Your task to perform on an android device: Search for dell alienware on ebay.com, select the first entry, and add it to the cart. Image 0: 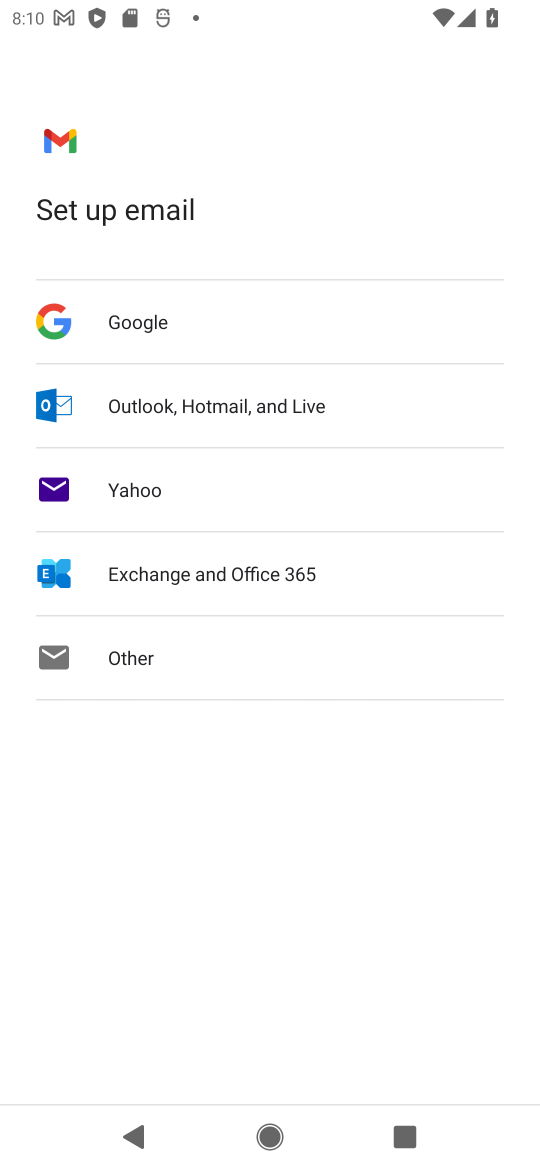
Step 0: press home button
Your task to perform on an android device: Search for dell alienware on ebay.com, select the first entry, and add it to the cart. Image 1: 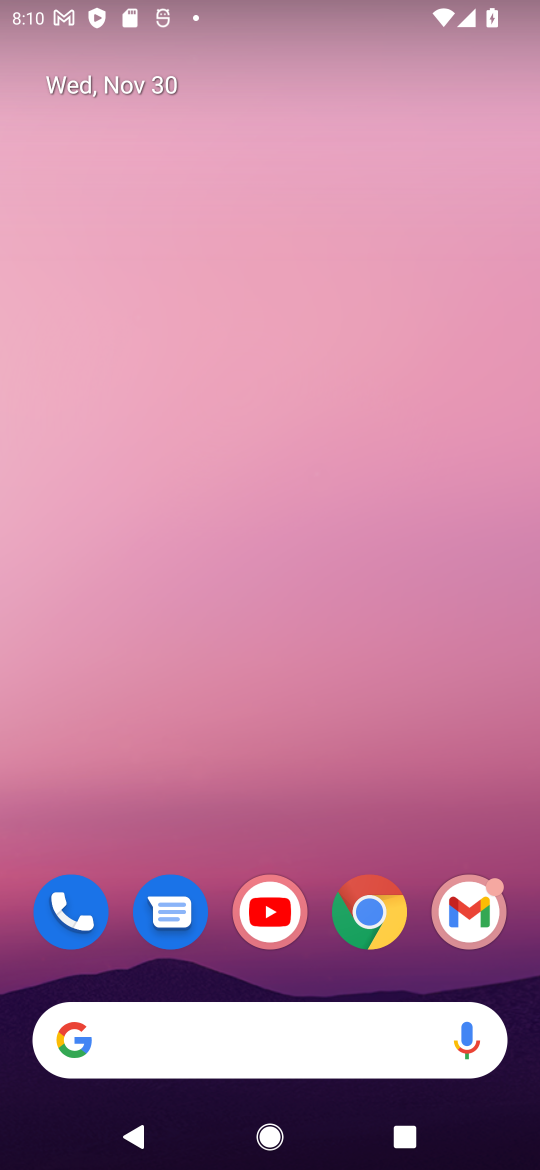
Step 1: click (290, 1049)
Your task to perform on an android device: Search for dell alienware on ebay.com, select the first entry, and add it to the cart. Image 2: 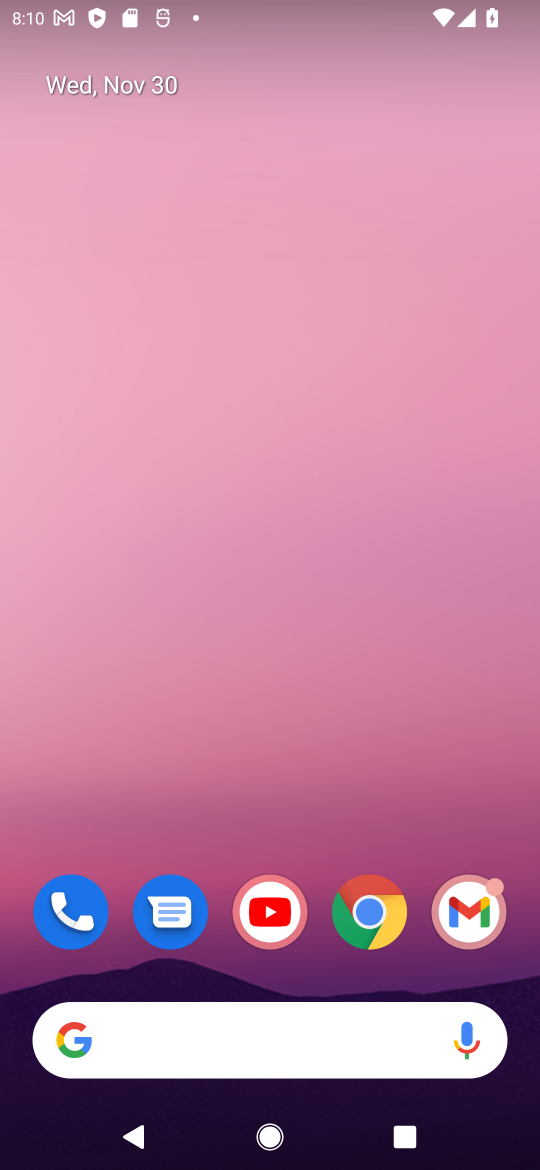
Step 2: click (230, 1051)
Your task to perform on an android device: Search for dell alienware on ebay.com, select the first entry, and add it to the cart. Image 3: 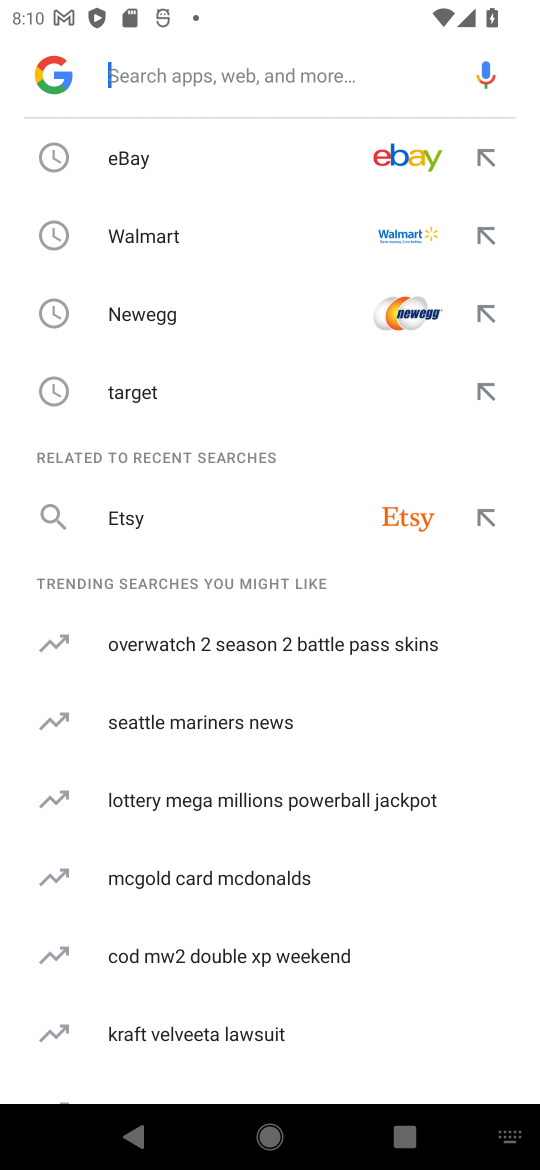
Step 3: click (170, 160)
Your task to perform on an android device: Search for dell alienware on ebay.com, select the first entry, and add it to the cart. Image 4: 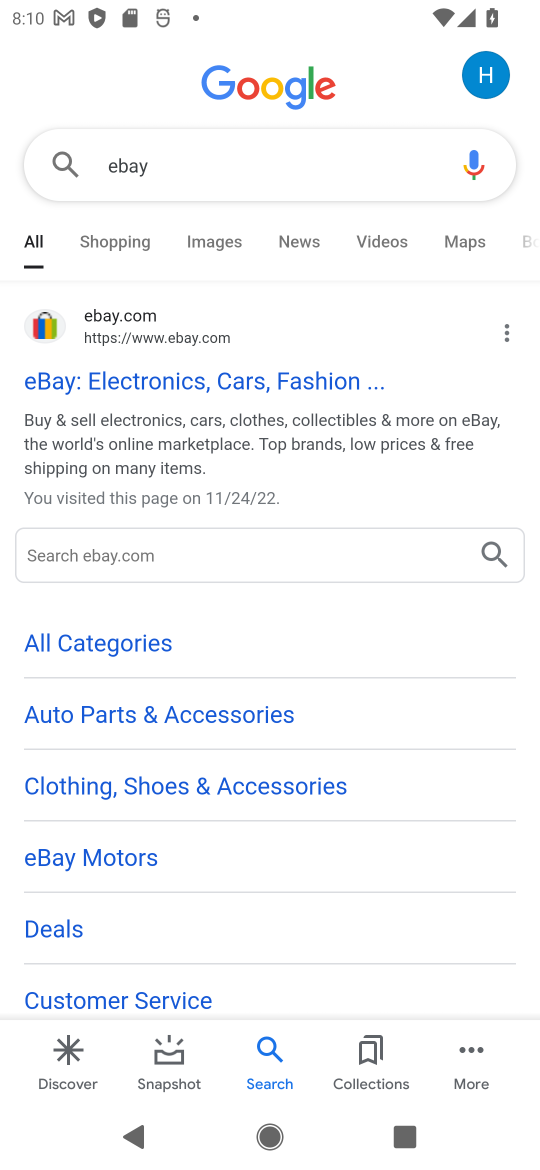
Step 4: click (110, 321)
Your task to perform on an android device: Search for dell alienware on ebay.com, select the first entry, and add it to the cart. Image 5: 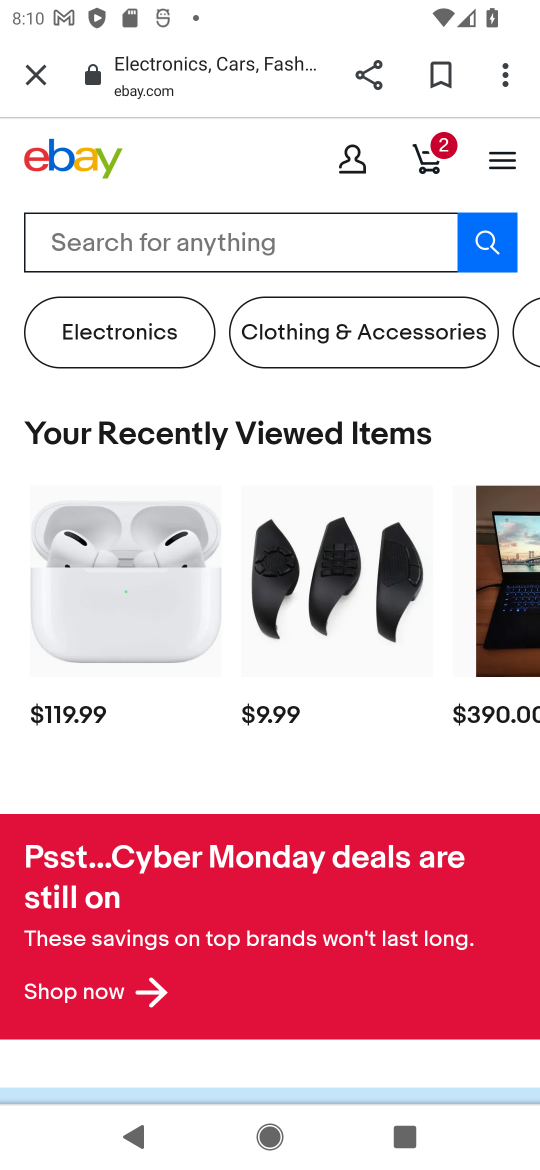
Step 5: click (194, 226)
Your task to perform on an android device: Search for dell alienware on ebay.com, select the first entry, and add it to the cart. Image 6: 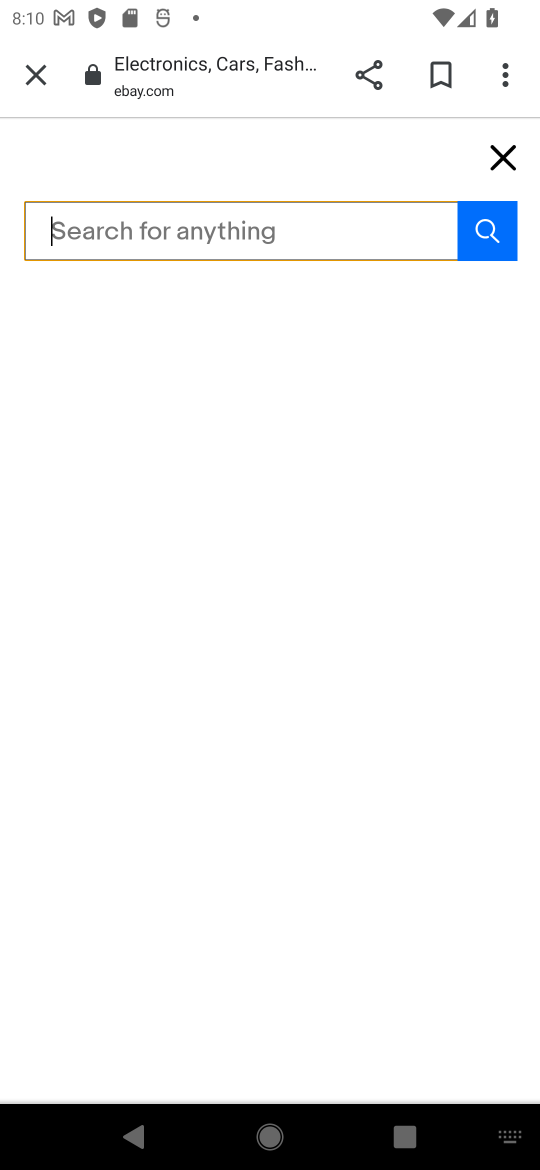
Step 6: type "dell alienware"
Your task to perform on an android device: Search for dell alienware on ebay.com, select the first entry, and add it to the cart. Image 7: 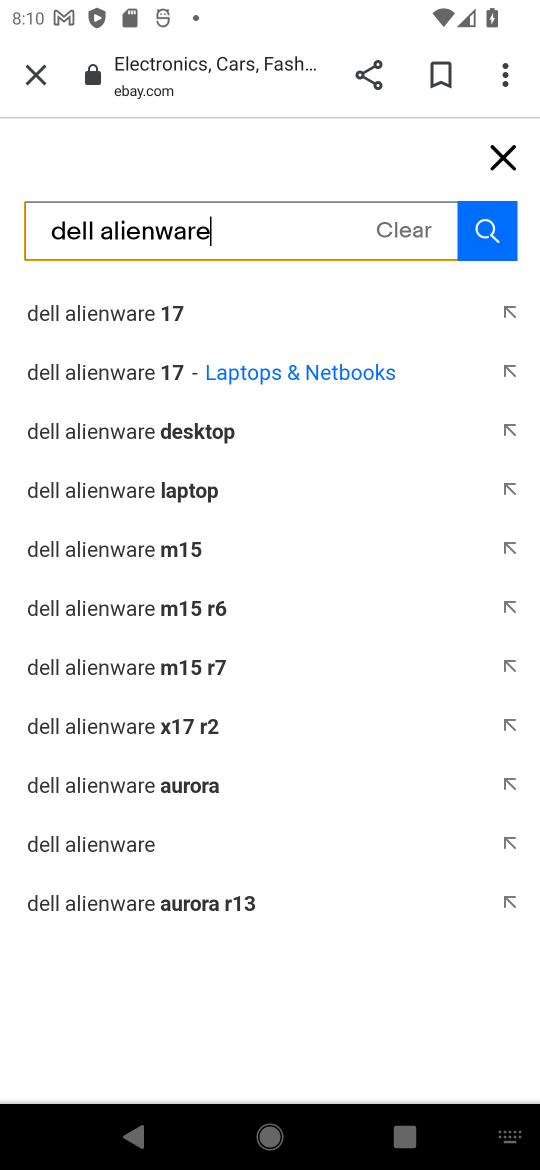
Step 7: click (498, 233)
Your task to perform on an android device: Search for dell alienware on ebay.com, select the first entry, and add it to the cart. Image 8: 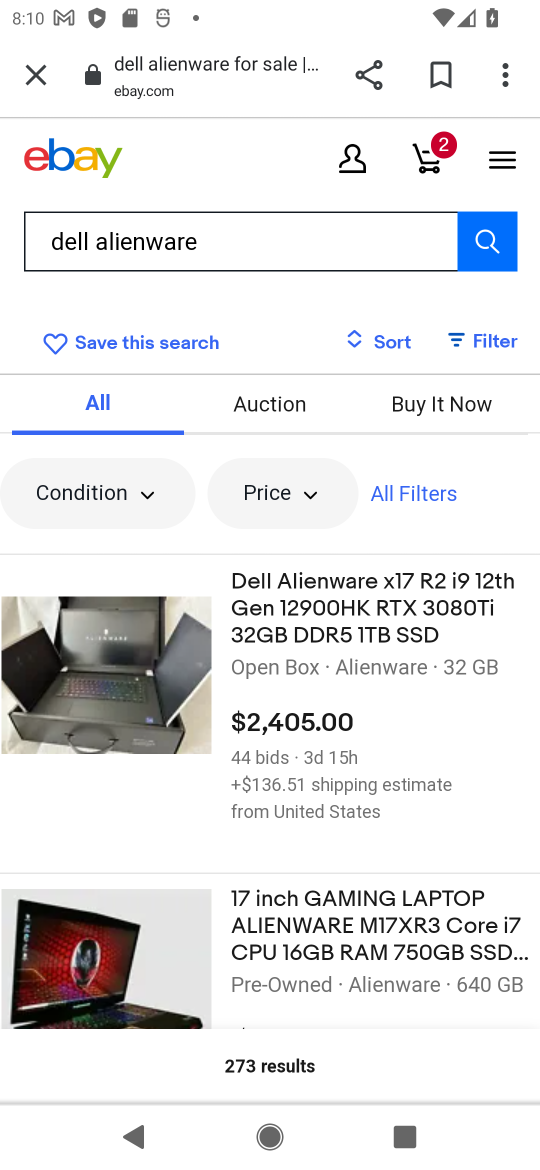
Step 8: click (284, 652)
Your task to perform on an android device: Search for dell alienware on ebay.com, select the first entry, and add it to the cart. Image 9: 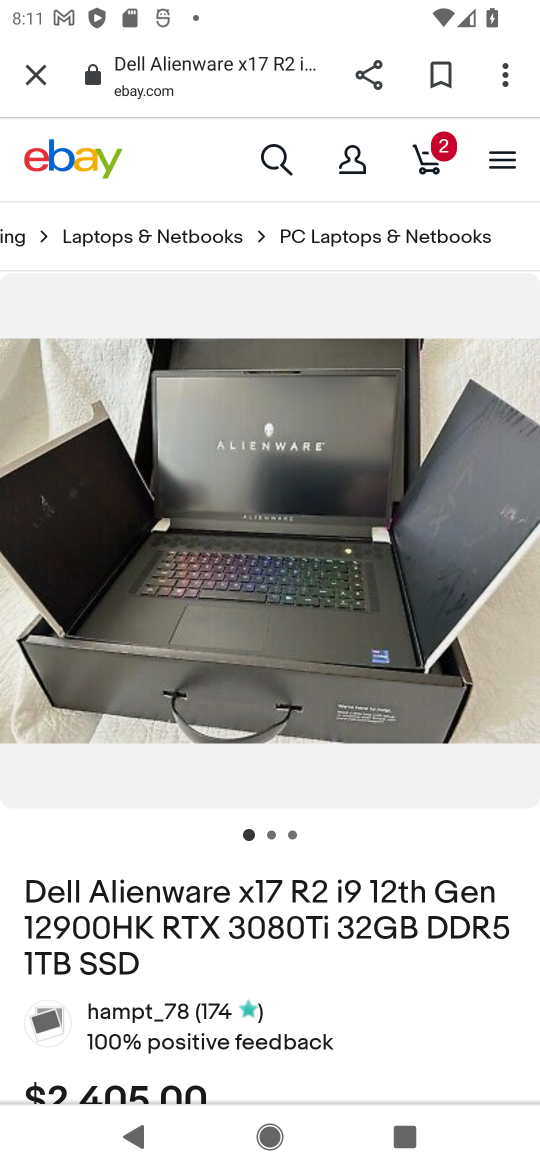
Step 9: drag from (356, 938) to (360, 286)
Your task to perform on an android device: Search for dell alienware on ebay.com, select the first entry, and add it to the cart. Image 10: 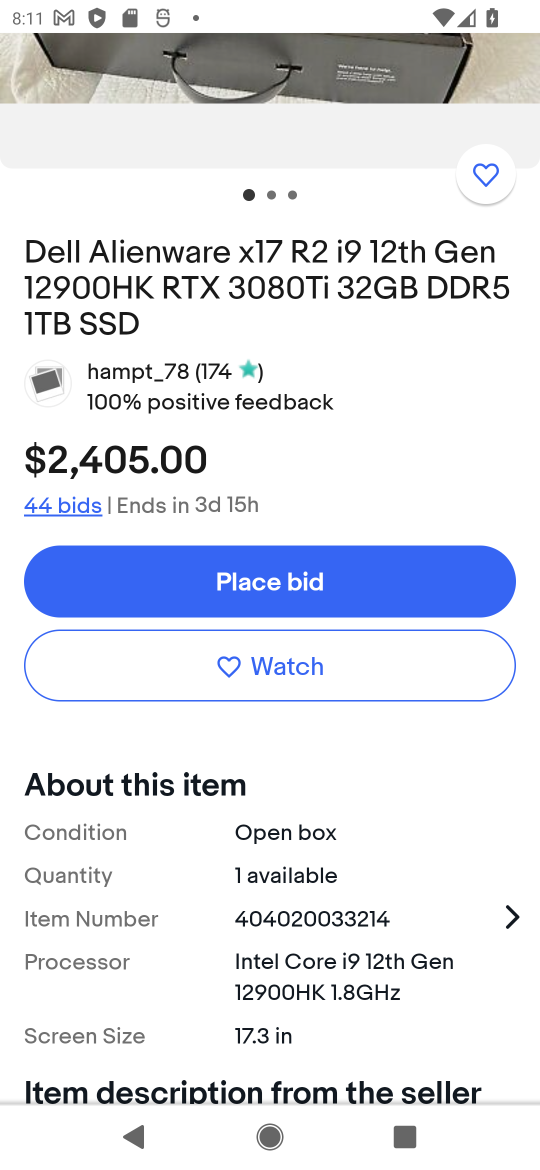
Step 10: click (317, 570)
Your task to perform on an android device: Search for dell alienware on ebay.com, select the first entry, and add it to the cart. Image 11: 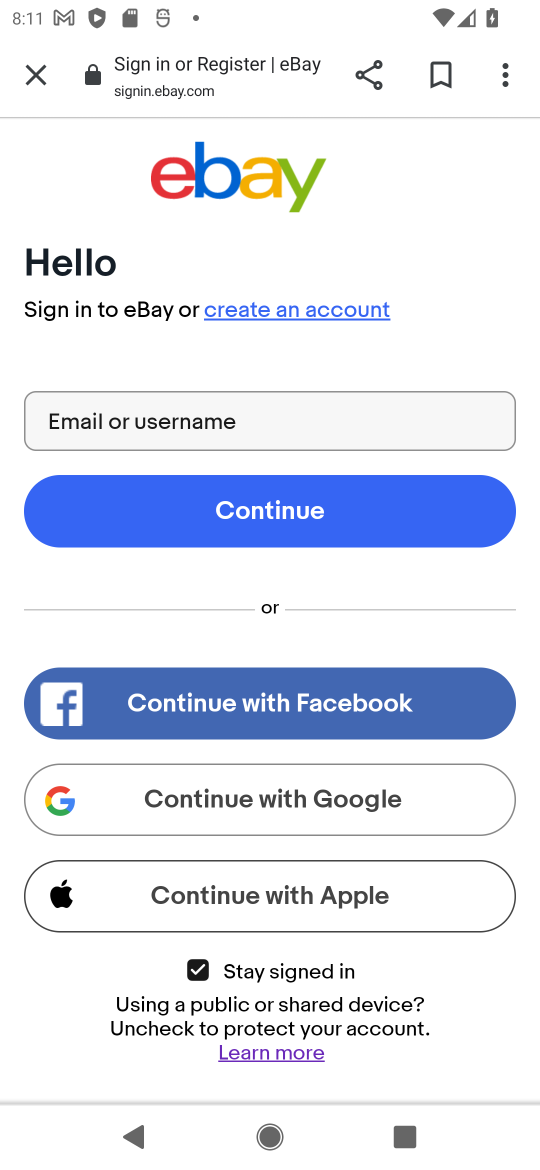
Step 11: task complete